Your task to perform on an android device: change the clock display to digital Image 0: 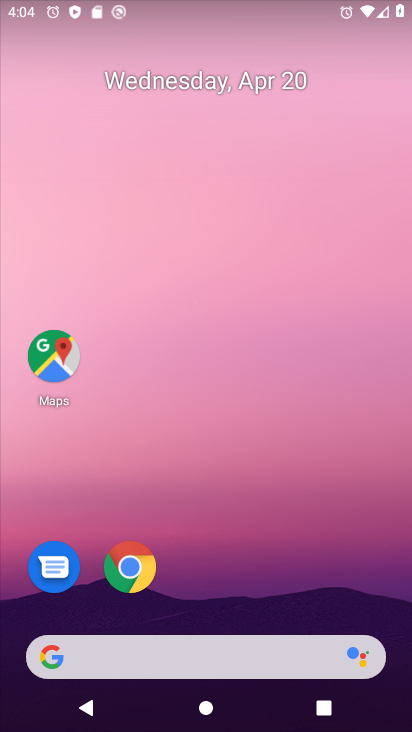
Step 0: drag from (306, 578) to (236, 201)
Your task to perform on an android device: change the clock display to digital Image 1: 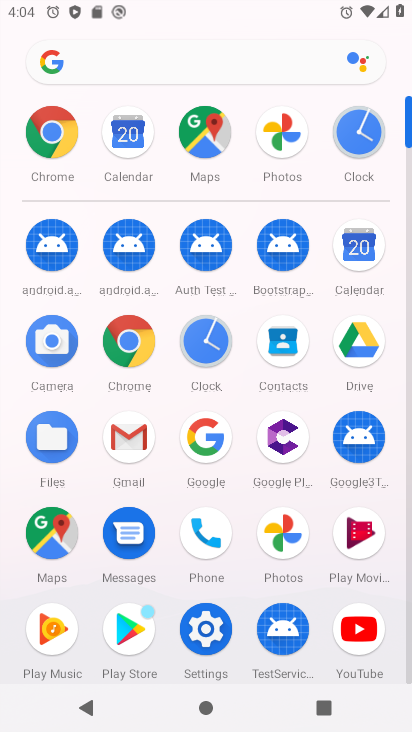
Step 1: click (359, 117)
Your task to perform on an android device: change the clock display to digital Image 2: 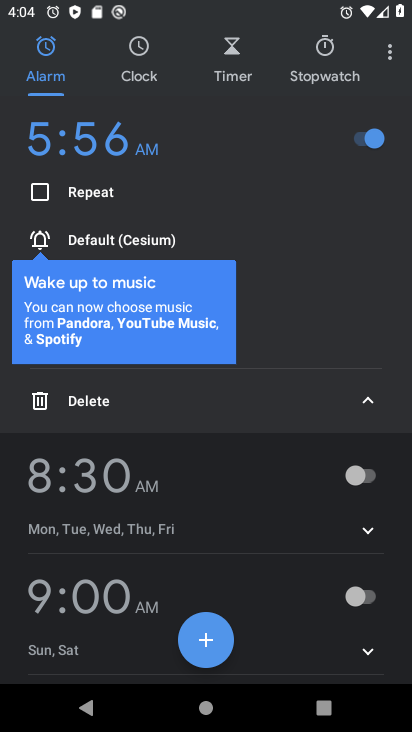
Step 2: click (388, 54)
Your task to perform on an android device: change the clock display to digital Image 3: 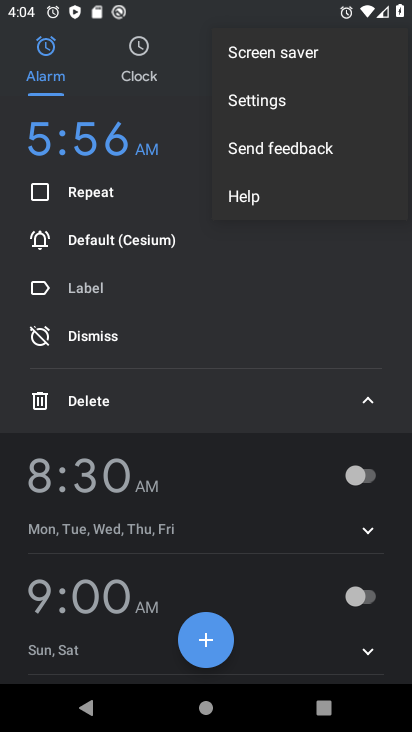
Step 3: click (354, 98)
Your task to perform on an android device: change the clock display to digital Image 4: 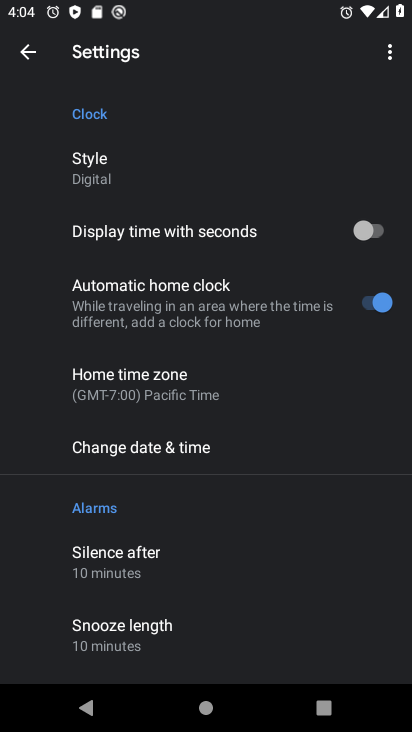
Step 4: click (273, 167)
Your task to perform on an android device: change the clock display to digital Image 5: 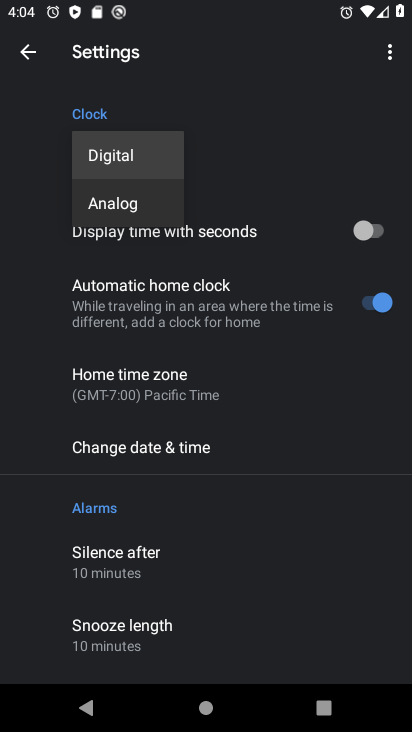
Step 5: click (166, 154)
Your task to perform on an android device: change the clock display to digital Image 6: 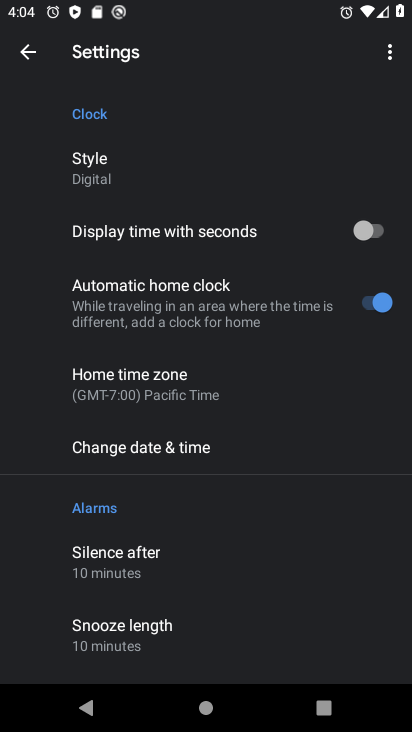
Step 6: task complete